Your task to perform on an android device: change the upload size in google photos Image 0: 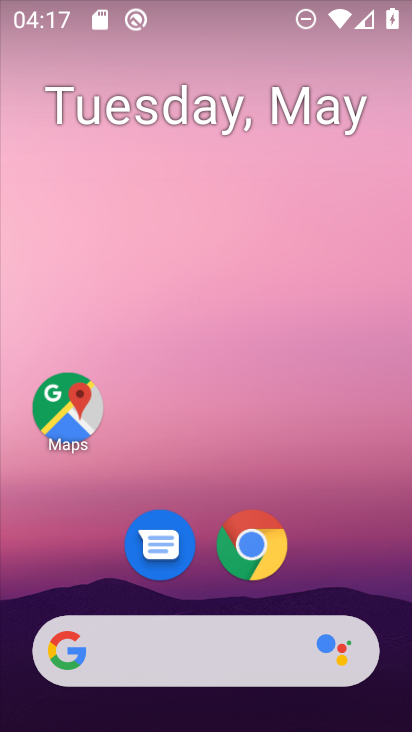
Step 0: drag from (359, 608) to (325, 63)
Your task to perform on an android device: change the upload size in google photos Image 1: 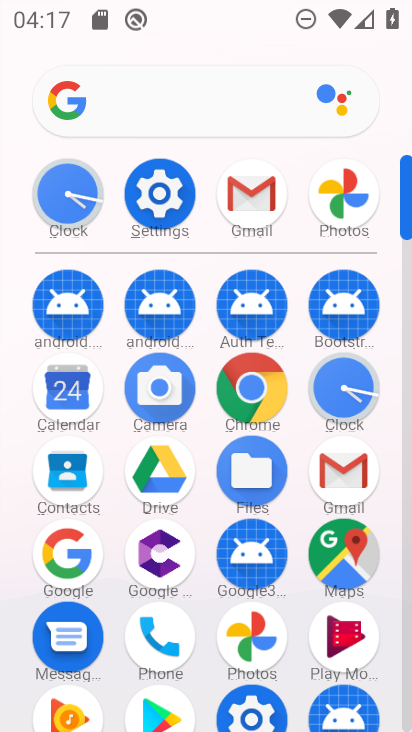
Step 1: click (251, 632)
Your task to perform on an android device: change the upload size in google photos Image 2: 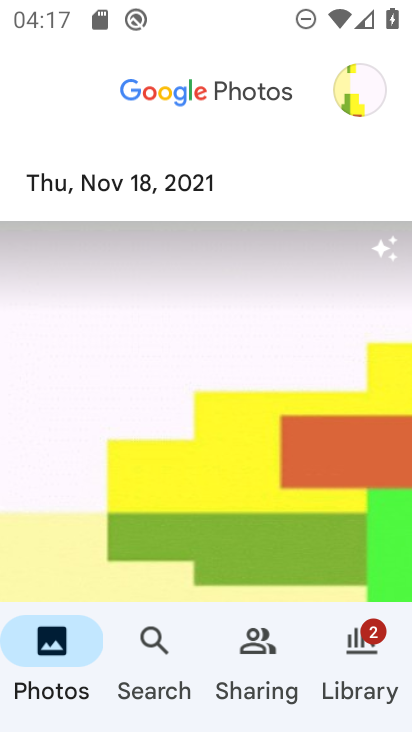
Step 2: click (360, 90)
Your task to perform on an android device: change the upload size in google photos Image 3: 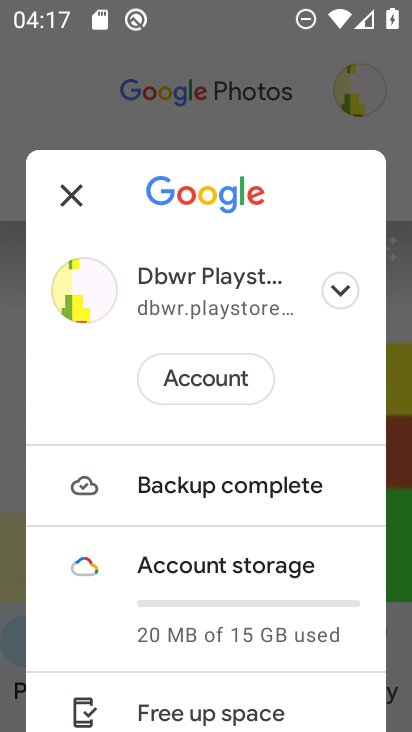
Step 3: drag from (200, 661) to (187, 144)
Your task to perform on an android device: change the upload size in google photos Image 4: 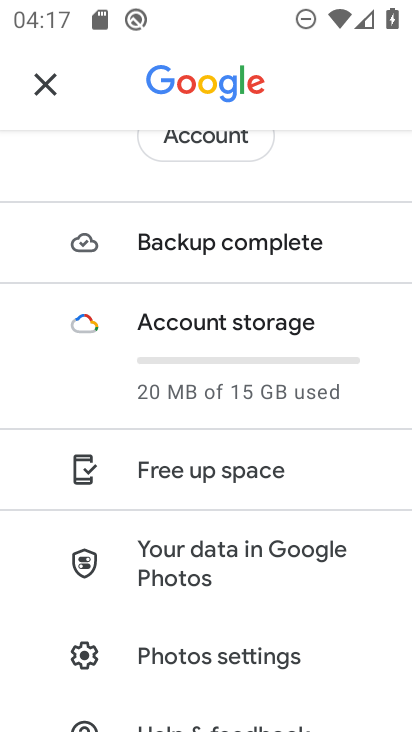
Step 4: click (179, 648)
Your task to perform on an android device: change the upload size in google photos Image 5: 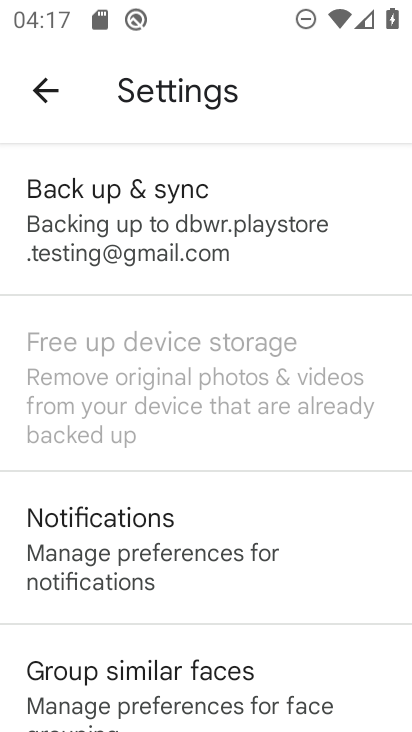
Step 5: click (153, 209)
Your task to perform on an android device: change the upload size in google photos Image 6: 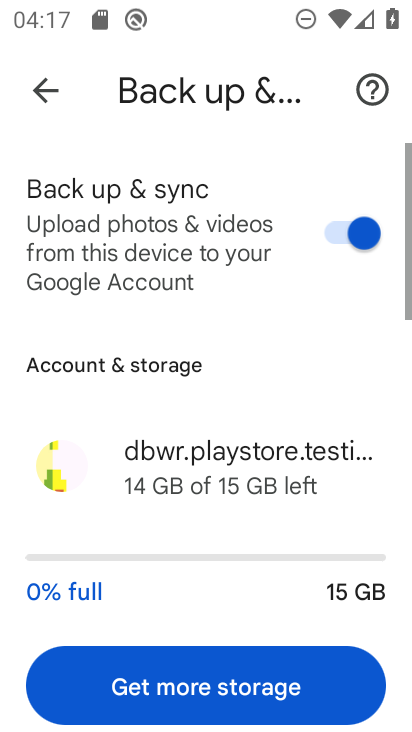
Step 6: drag from (246, 586) to (197, 108)
Your task to perform on an android device: change the upload size in google photos Image 7: 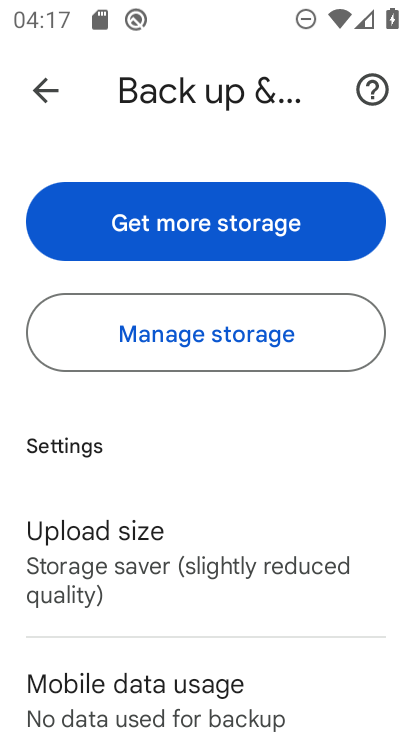
Step 7: click (86, 556)
Your task to perform on an android device: change the upload size in google photos Image 8: 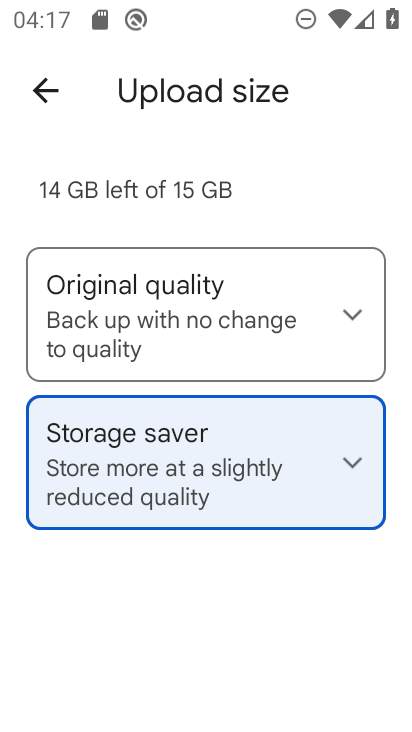
Step 8: click (203, 298)
Your task to perform on an android device: change the upload size in google photos Image 9: 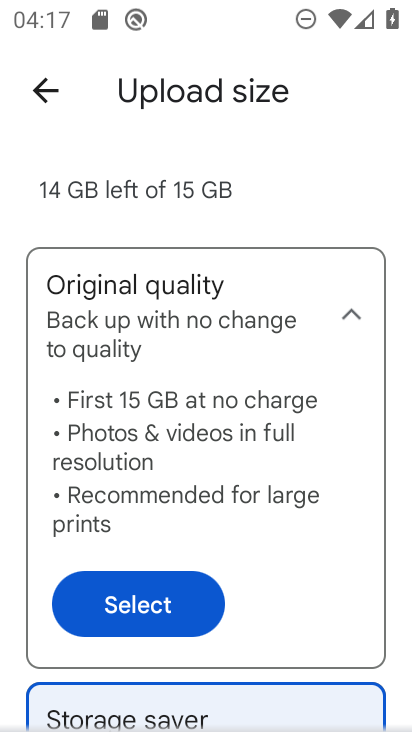
Step 9: click (124, 598)
Your task to perform on an android device: change the upload size in google photos Image 10: 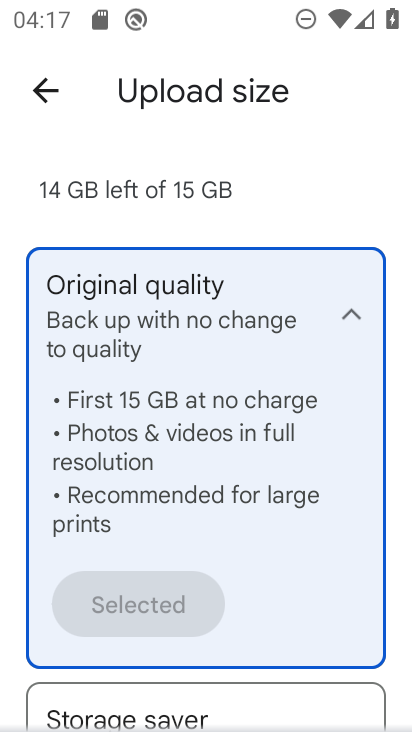
Step 10: task complete